Your task to perform on an android device: Open Google Maps Image 0: 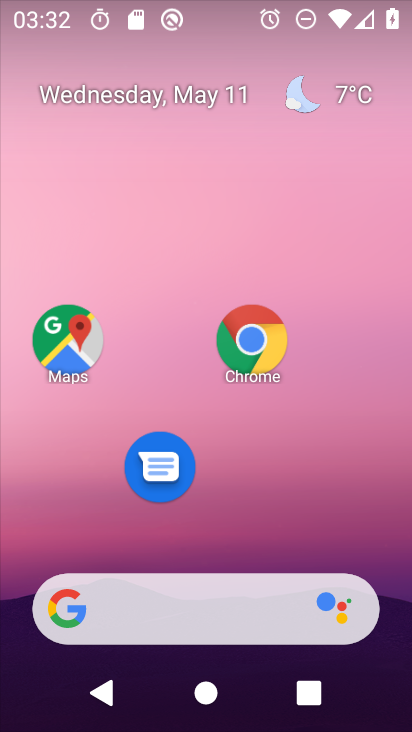
Step 0: click (67, 353)
Your task to perform on an android device: Open Google Maps Image 1: 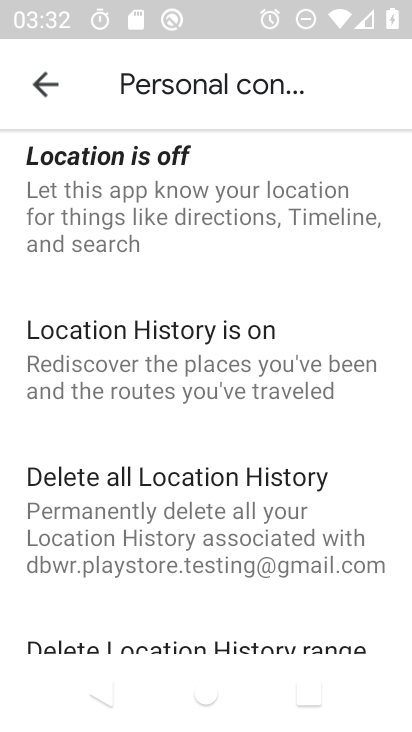
Step 1: click (43, 91)
Your task to perform on an android device: Open Google Maps Image 2: 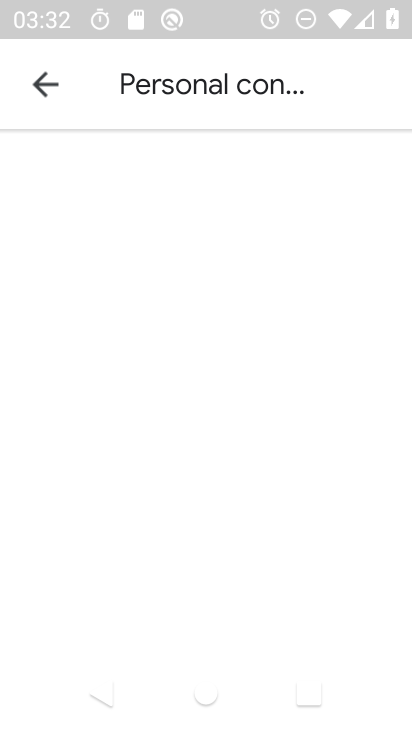
Step 2: click (43, 91)
Your task to perform on an android device: Open Google Maps Image 3: 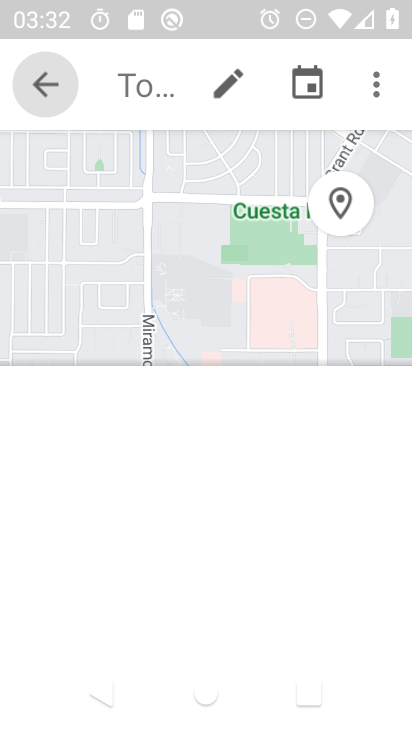
Step 3: click (45, 89)
Your task to perform on an android device: Open Google Maps Image 4: 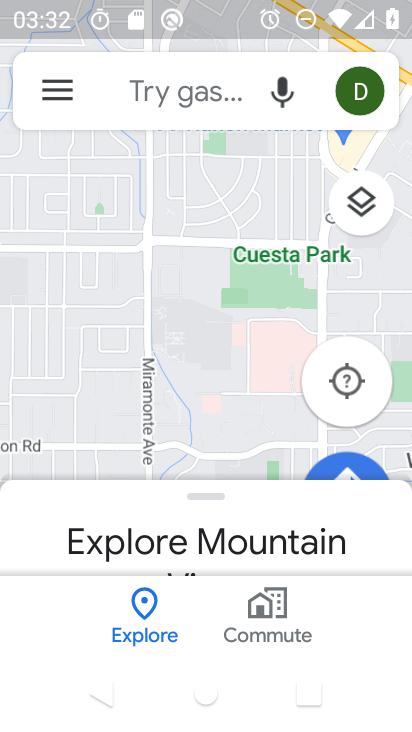
Step 4: task complete